Your task to perform on an android device: toggle translation in the chrome app Image 0: 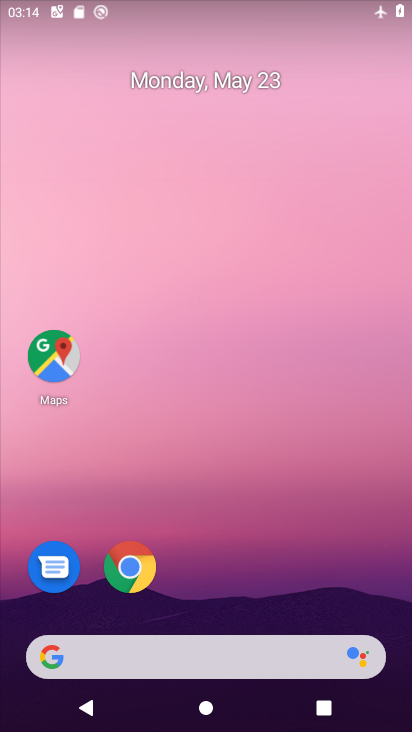
Step 0: drag from (319, 521) to (297, 0)
Your task to perform on an android device: toggle translation in the chrome app Image 1: 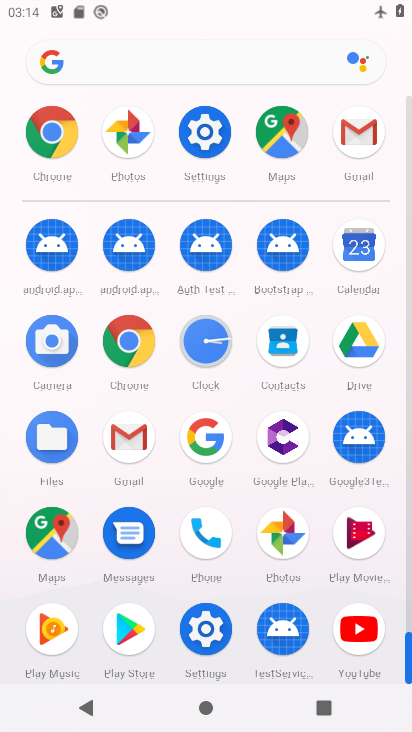
Step 1: click (150, 343)
Your task to perform on an android device: toggle translation in the chrome app Image 2: 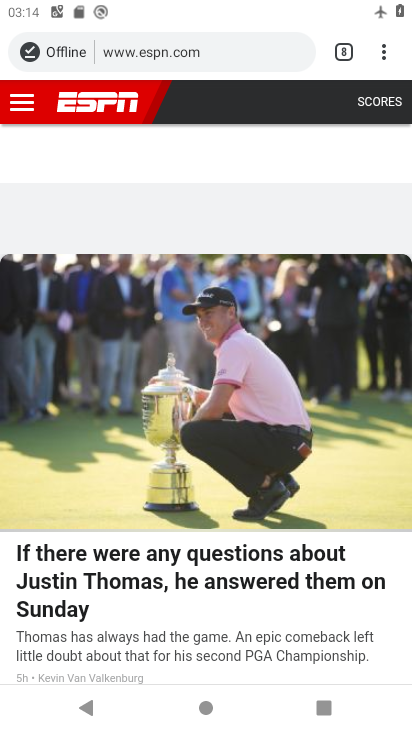
Step 2: click (389, 57)
Your task to perform on an android device: toggle translation in the chrome app Image 3: 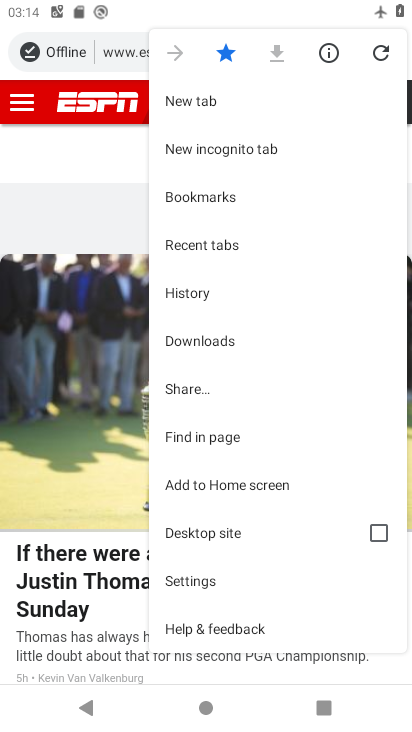
Step 3: click (229, 584)
Your task to perform on an android device: toggle translation in the chrome app Image 4: 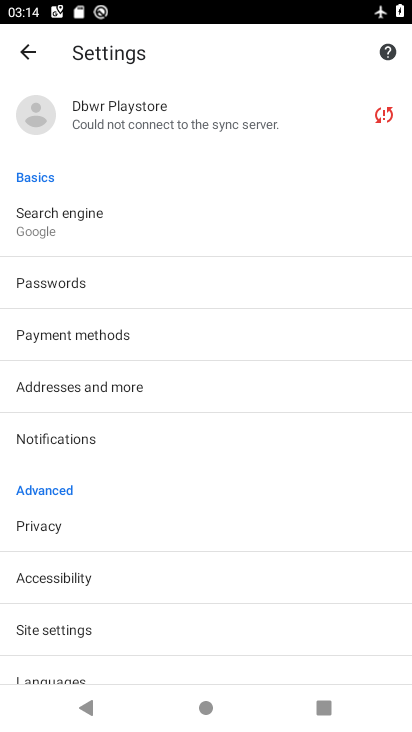
Step 4: drag from (111, 619) to (121, 501)
Your task to perform on an android device: toggle translation in the chrome app Image 5: 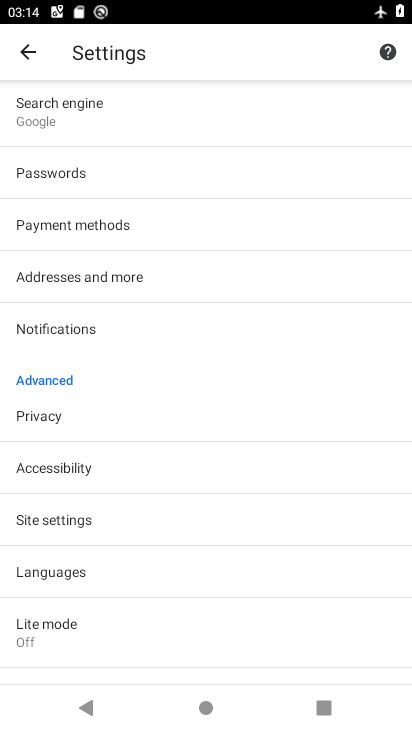
Step 5: click (93, 571)
Your task to perform on an android device: toggle translation in the chrome app Image 6: 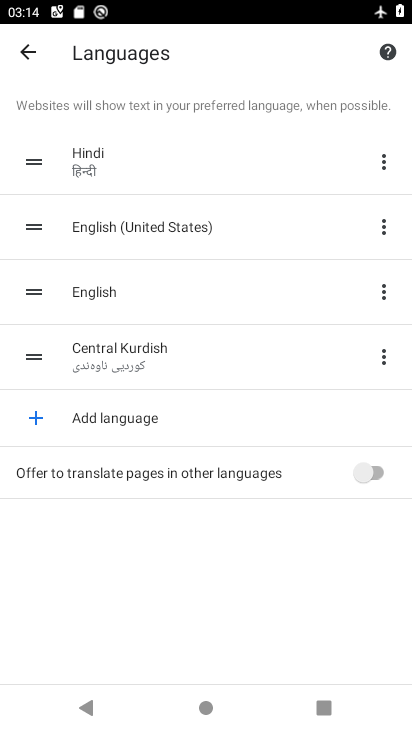
Step 6: click (372, 480)
Your task to perform on an android device: toggle translation in the chrome app Image 7: 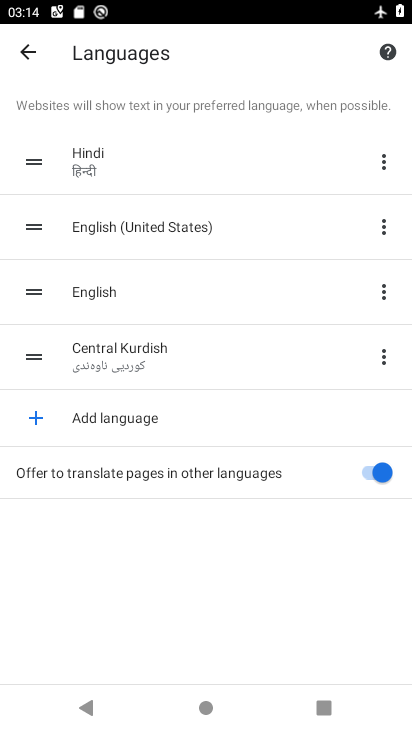
Step 7: task complete